Your task to perform on an android device: find snoozed emails in the gmail app Image 0: 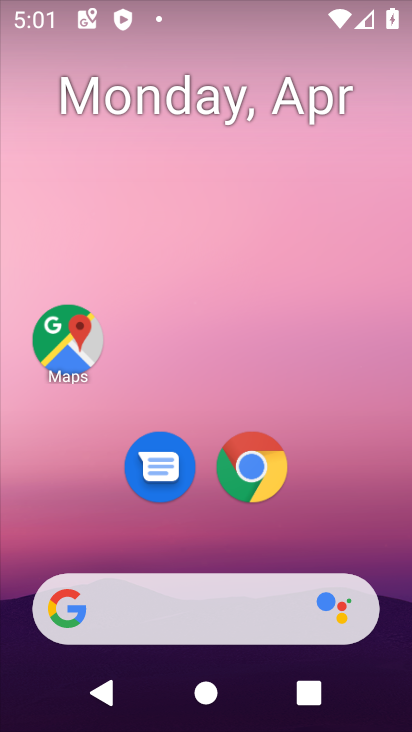
Step 0: drag from (334, 565) to (369, 32)
Your task to perform on an android device: find snoozed emails in the gmail app Image 1: 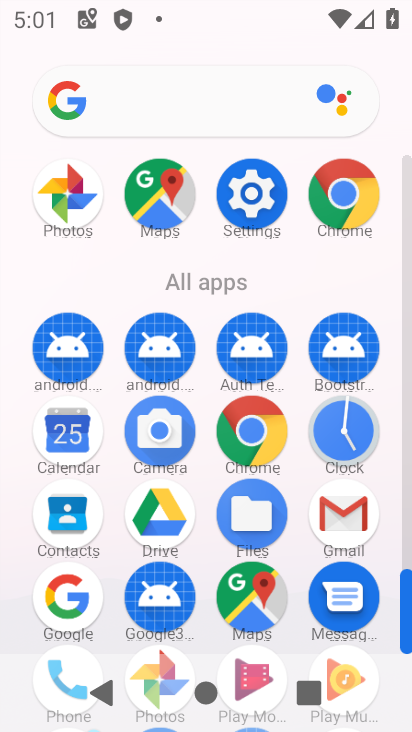
Step 1: click (326, 510)
Your task to perform on an android device: find snoozed emails in the gmail app Image 2: 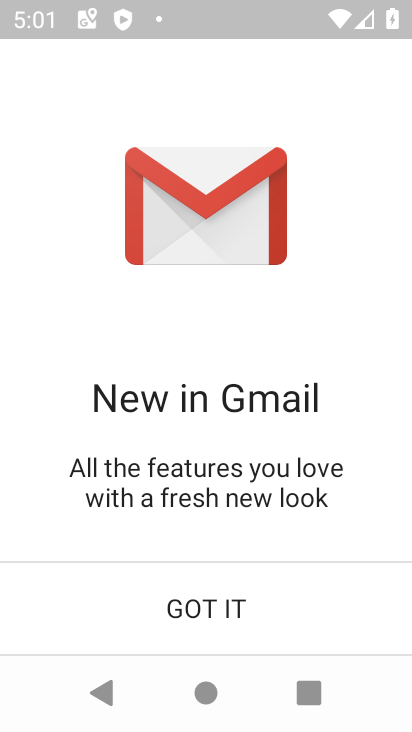
Step 2: click (298, 637)
Your task to perform on an android device: find snoozed emails in the gmail app Image 3: 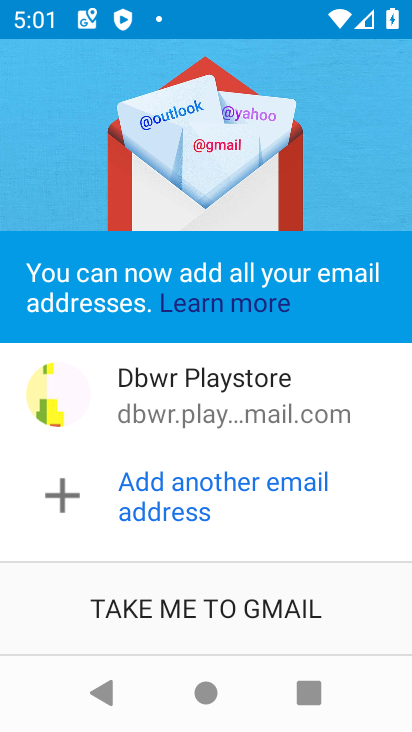
Step 3: click (311, 628)
Your task to perform on an android device: find snoozed emails in the gmail app Image 4: 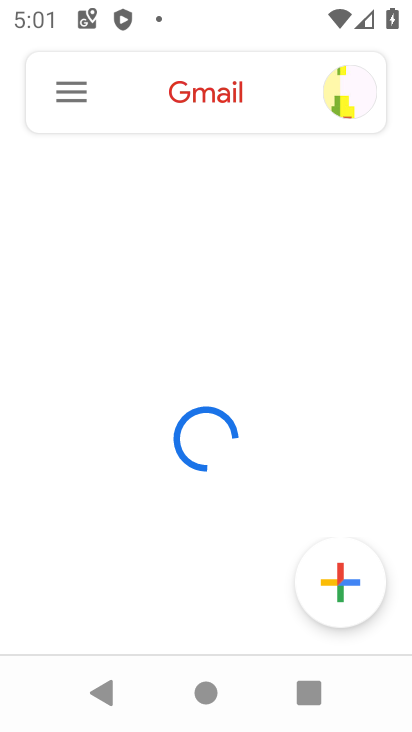
Step 4: click (68, 101)
Your task to perform on an android device: find snoozed emails in the gmail app Image 5: 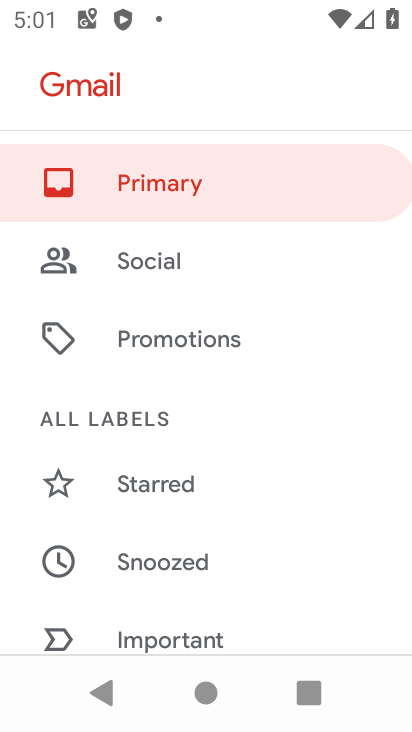
Step 5: drag from (157, 637) to (214, 262)
Your task to perform on an android device: find snoozed emails in the gmail app Image 6: 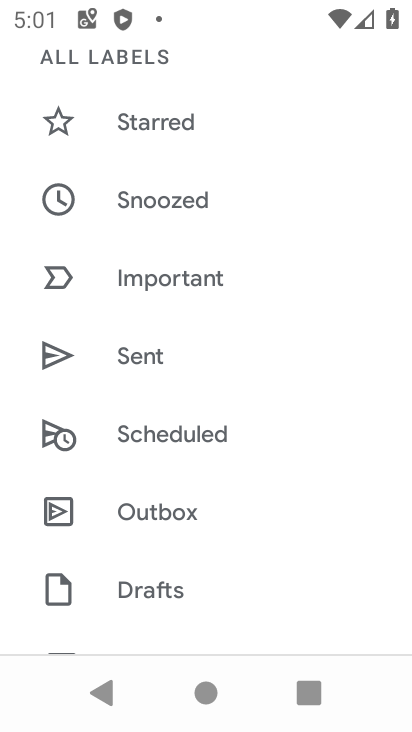
Step 6: click (191, 209)
Your task to perform on an android device: find snoozed emails in the gmail app Image 7: 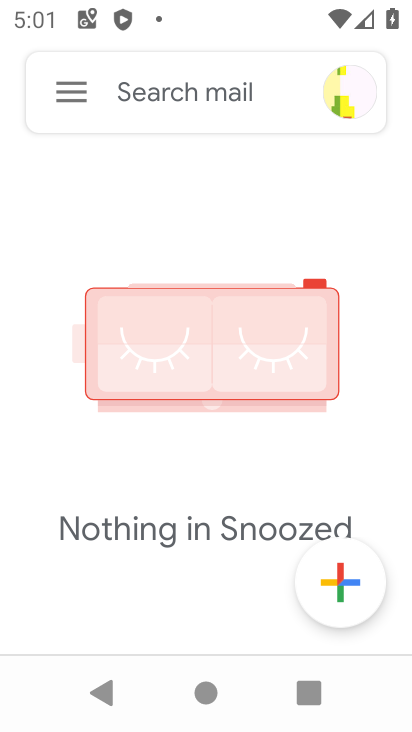
Step 7: task complete